Your task to perform on an android device: turn on showing notifications on the lock screen Image 0: 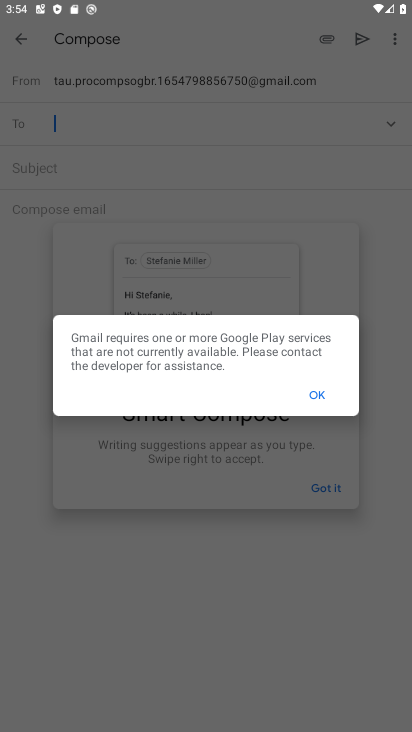
Step 0: press home button
Your task to perform on an android device: turn on showing notifications on the lock screen Image 1: 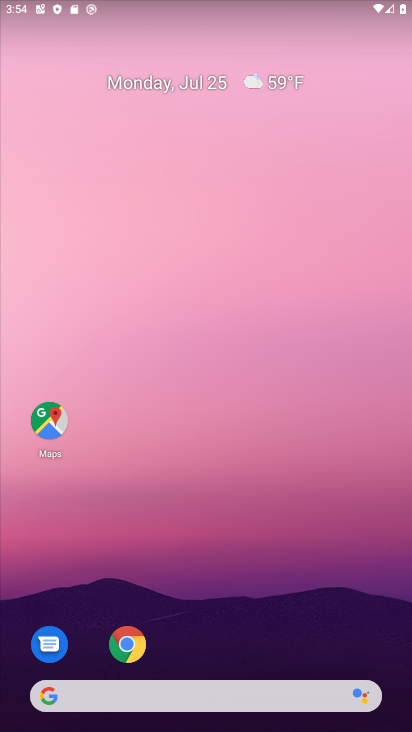
Step 1: drag from (173, 688) to (143, 184)
Your task to perform on an android device: turn on showing notifications on the lock screen Image 2: 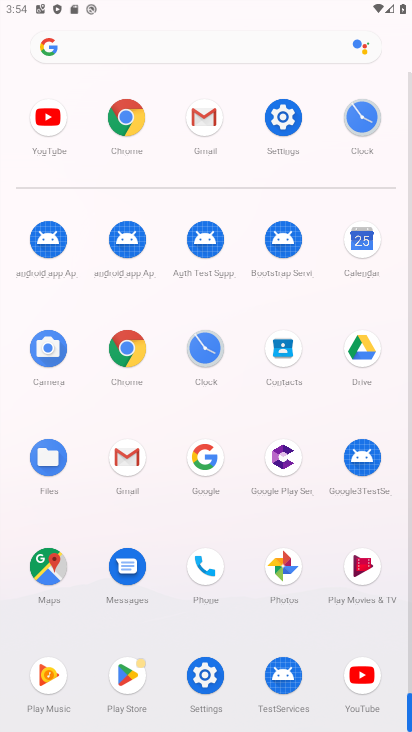
Step 2: click (291, 110)
Your task to perform on an android device: turn on showing notifications on the lock screen Image 3: 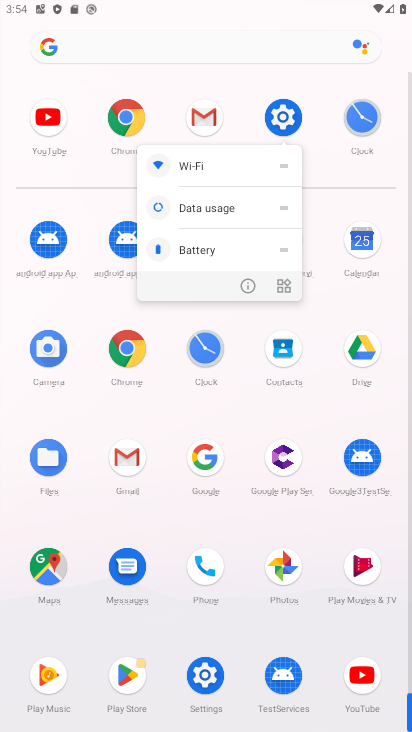
Step 3: click (290, 116)
Your task to perform on an android device: turn on showing notifications on the lock screen Image 4: 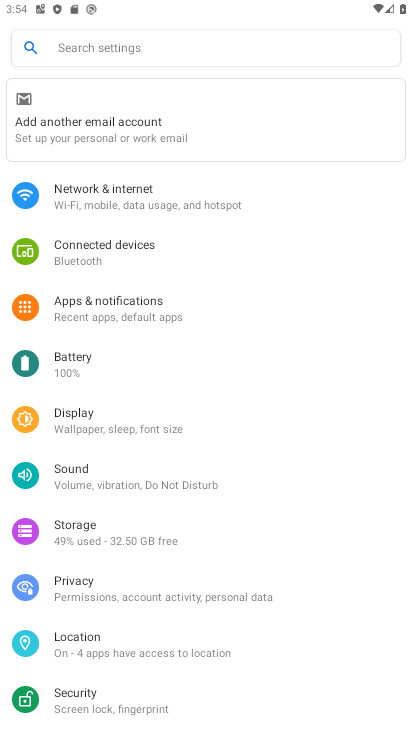
Step 4: click (137, 313)
Your task to perform on an android device: turn on showing notifications on the lock screen Image 5: 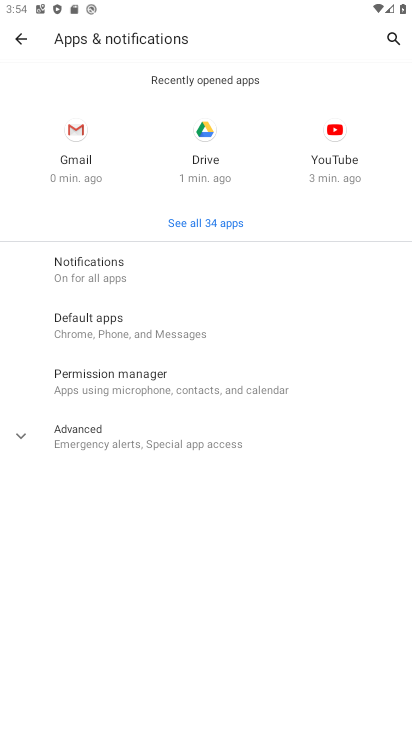
Step 5: click (84, 274)
Your task to perform on an android device: turn on showing notifications on the lock screen Image 6: 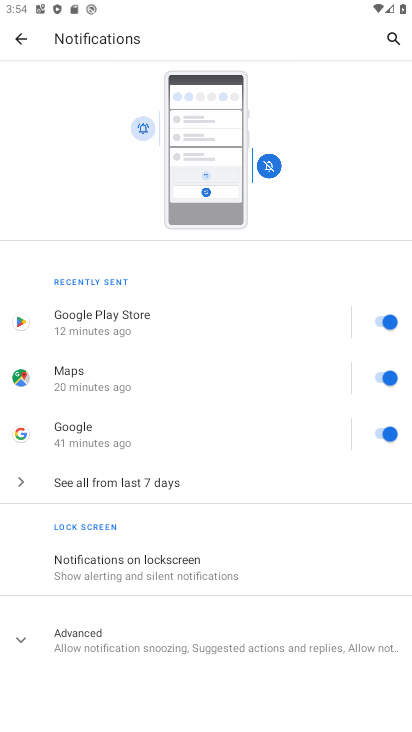
Step 6: click (89, 553)
Your task to perform on an android device: turn on showing notifications on the lock screen Image 7: 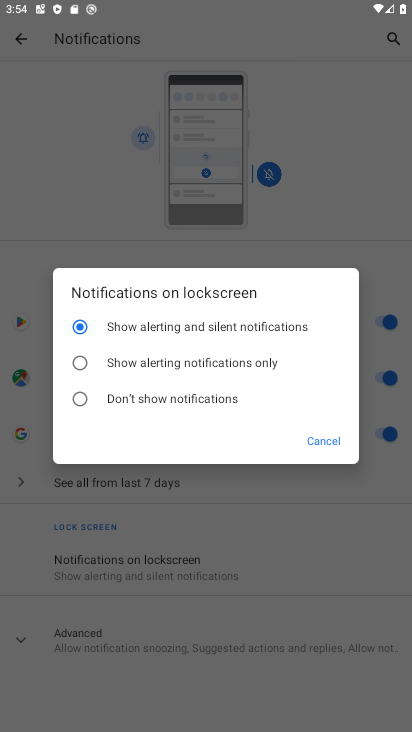
Step 7: click (326, 438)
Your task to perform on an android device: turn on showing notifications on the lock screen Image 8: 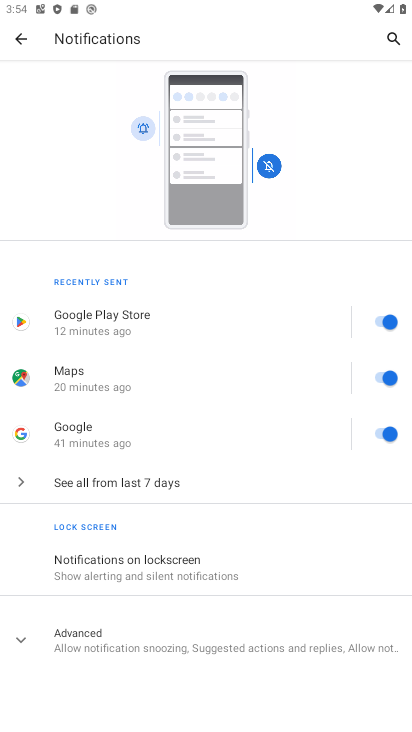
Step 8: task complete